Your task to perform on an android device: set the stopwatch Image 0: 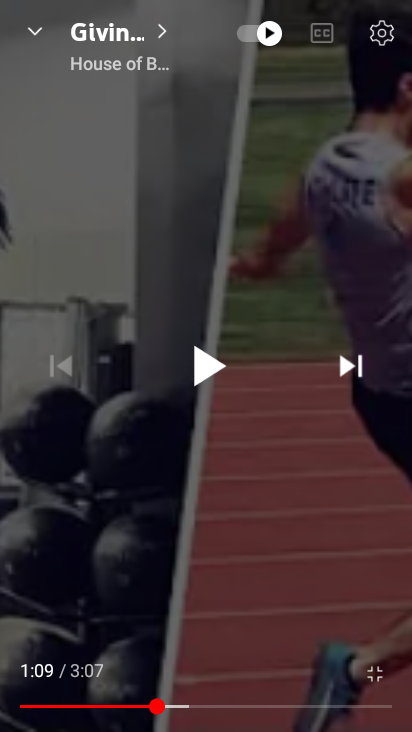
Step 0: press back button
Your task to perform on an android device: set the stopwatch Image 1: 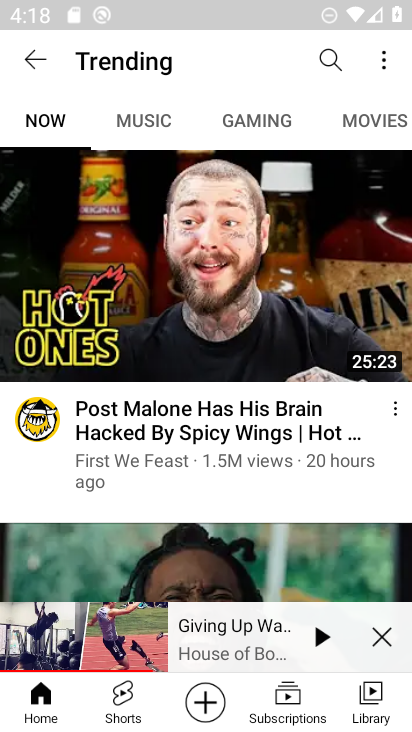
Step 1: press back button
Your task to perform on an android device: set the stopwatch Image 2: 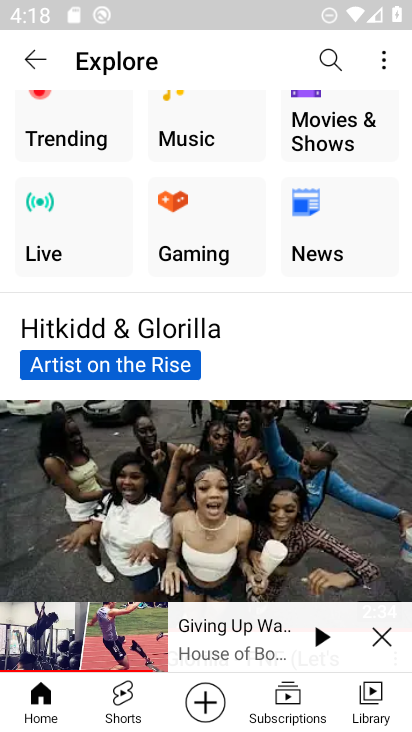
Step 2: press home button
Your task to perform on an android device: set the stopwatch Image 3: 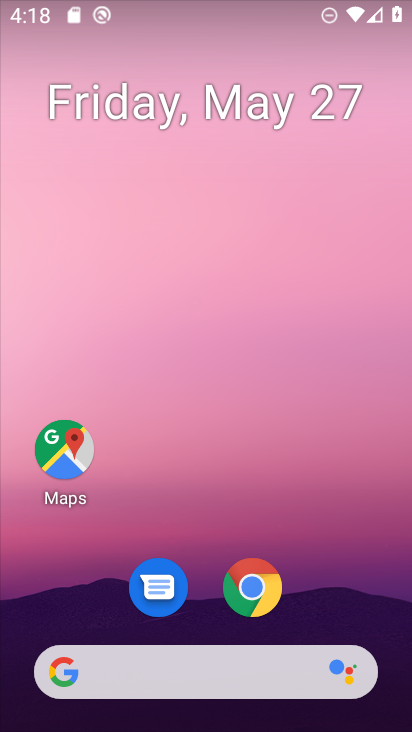
Step 3: drag from (335, 568) to (271, 90)
Your task to perform on an android device: set the stopwatch Image 4: 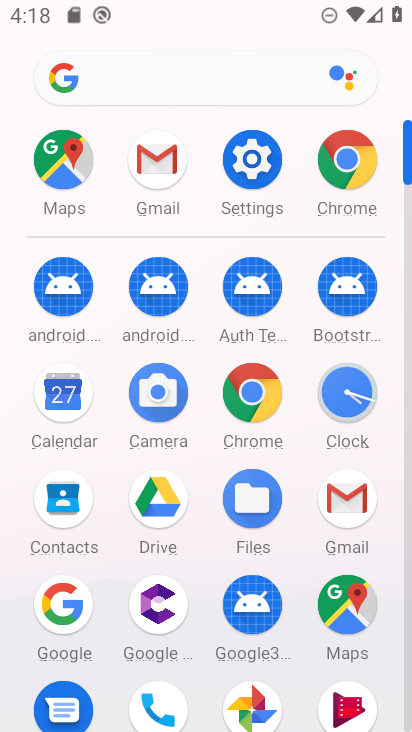
Step 4: drag from (26, 567) to (41, 220)
Your task to perform on an android device: set the stopwatch Image 5: 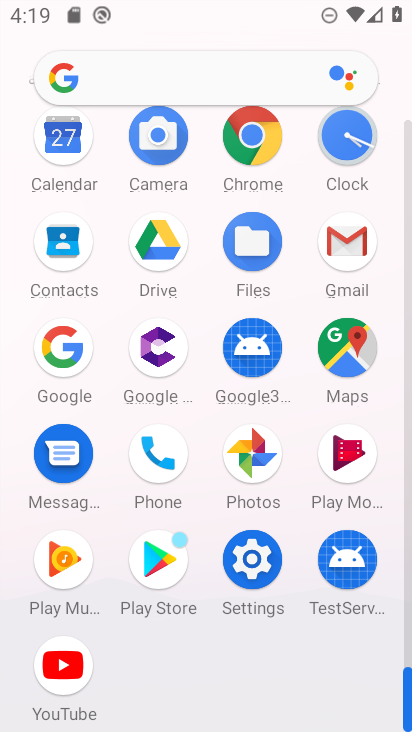
Step 5: drag from (0, 195) to (2, 447)
Your task to perform on an android device: set the stopwatch Image 6: 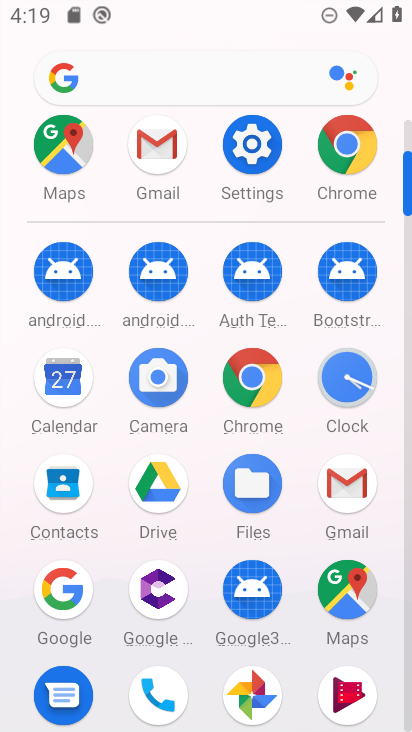
Step 6: click (342, 376)
Your task to perform on an android device: set the stopwatch Image 7: 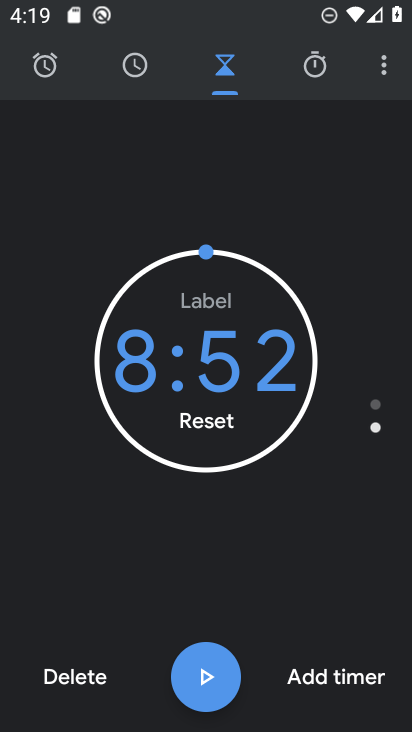
Step 7: click (317, 63)
Your task to perform on an android device: set the stopwatch Image 8: 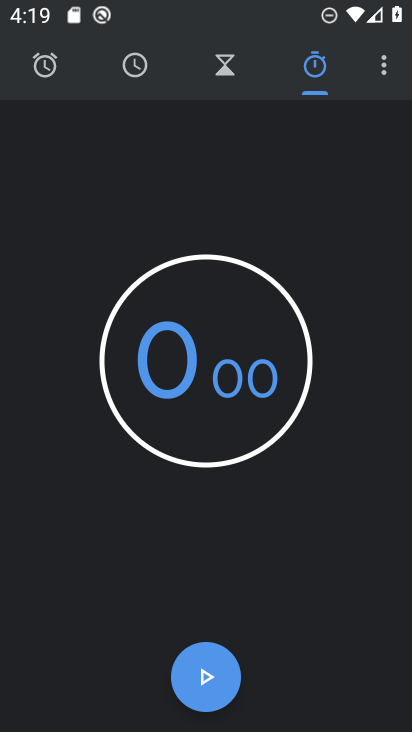
Step 8: click (191, 659)
Your task to perform on an android device: set the stopwatch Image 9: 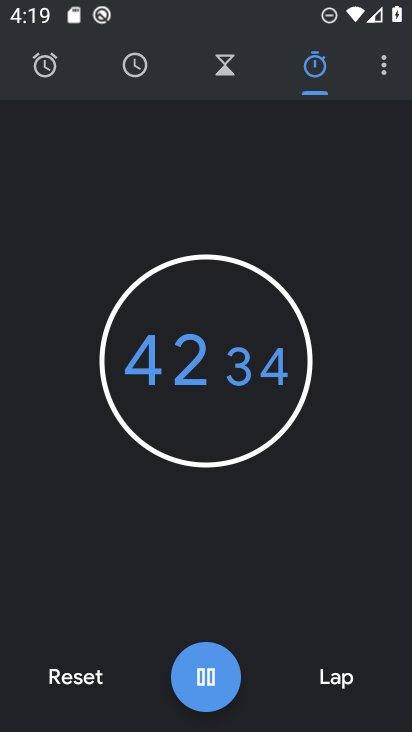
Step 9: task complete